Your task to perform on an android device: turn off data saver in the chrome app Image 0: 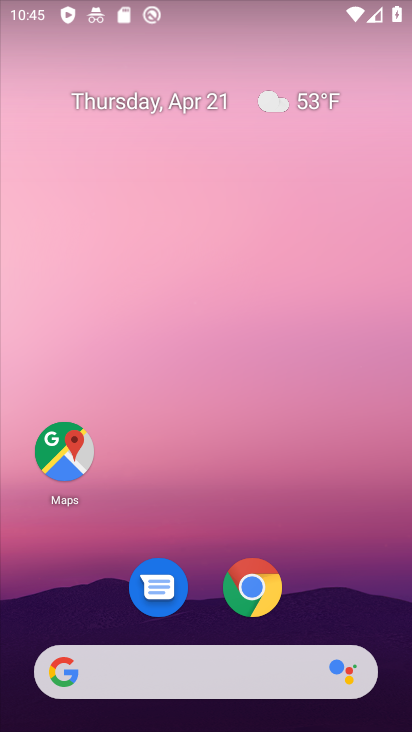
Step 0: click (251, 612)
Your task to perform on an android device: turn off data saver in the chrome app Image 1: 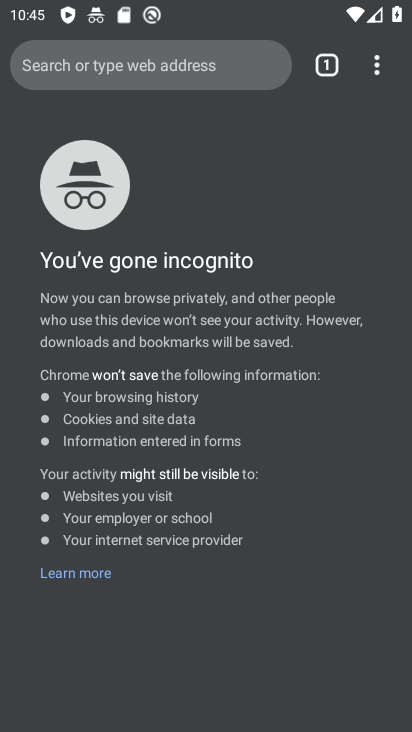
Step 1: drag from (373, 55) to (183, 485)
Your task to perform on an android device: turn off data saver in the chrome app Image 2: 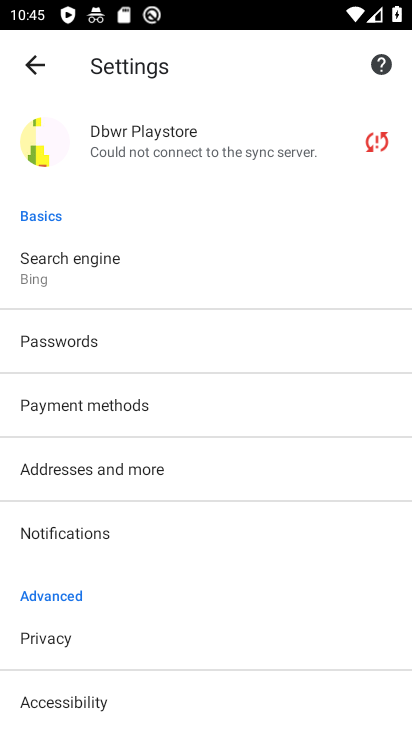
Step 2: drag from (149, 605) to (165, 165)
Your task to perform on an android device: turn off data saver in the chrome app Image 3: 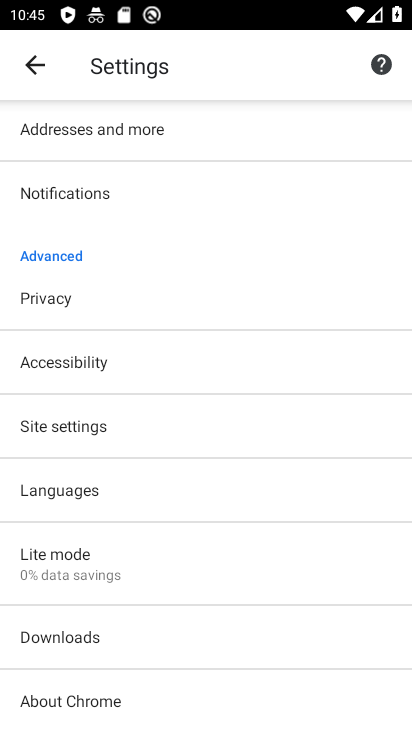
Step 3: click (108, 580)
Your task to perform on an android device: turn off data saver in the chrome app Image 4: 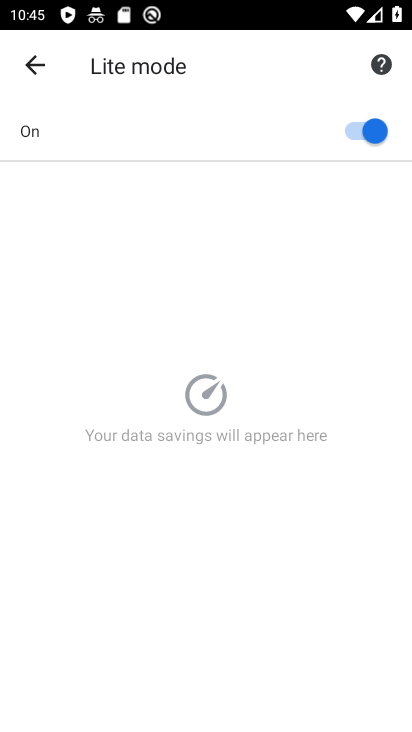
Step 4: click (360, 141)
Your task to perform on an android device: turn off data saver in the chrome app Image 5: 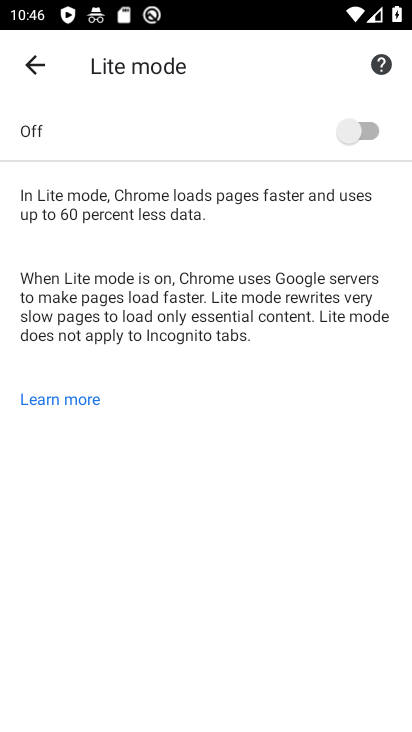
Step 5: task complete